Your task to perform on an android device: open wifi settings Image 0: 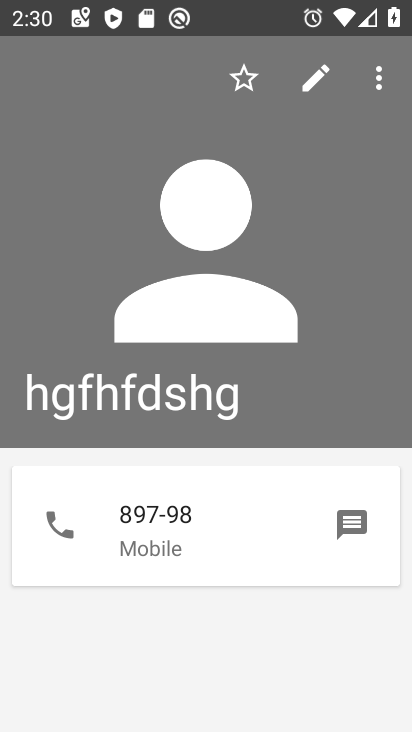
Step 0: press home button
Your task to perform on an android device: open wifi settings Image 1: 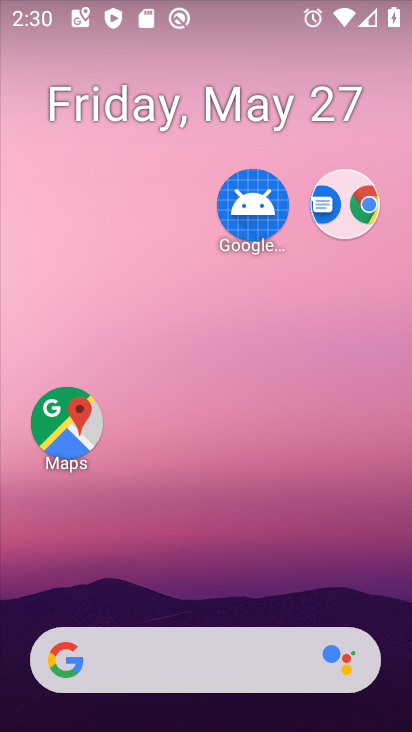
Step 1: drag from (211, 542) to (207, 137)
Your task to perform on an android device: open wifi settings Image 2: 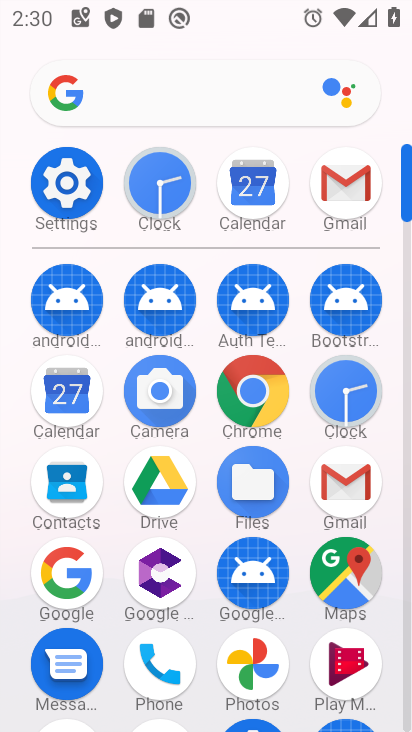
Step 2: click (70, 207)
Your task to perform on an android device: open wifi settings Image 3: 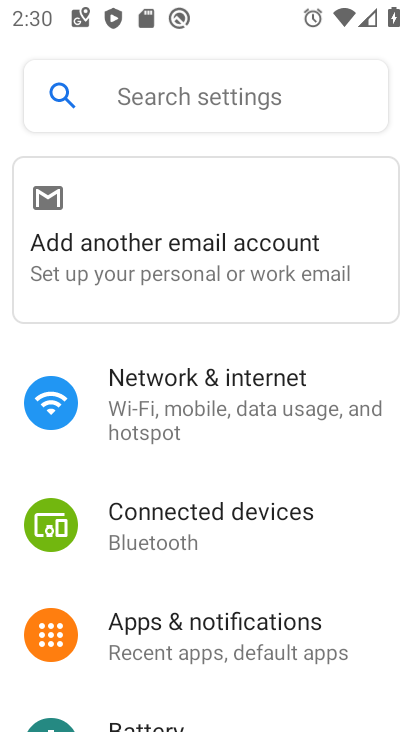
Step 3: click (204, 417)
Your task to perform on an android device: open wifi settings Image 4: 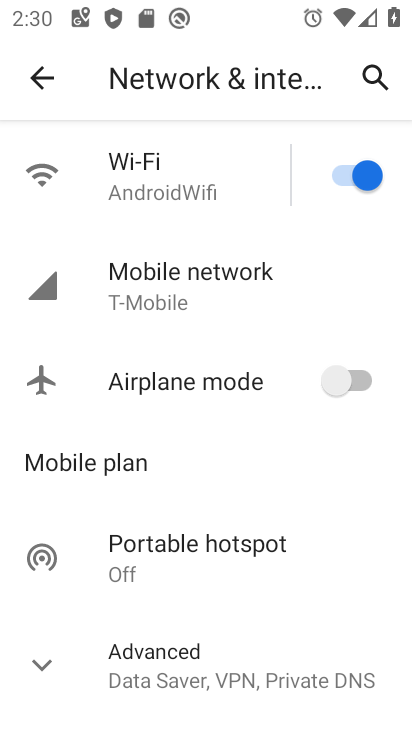
Step 4: click (218, 184)
Your task to perform on an android device: open wifi settings Image 5: 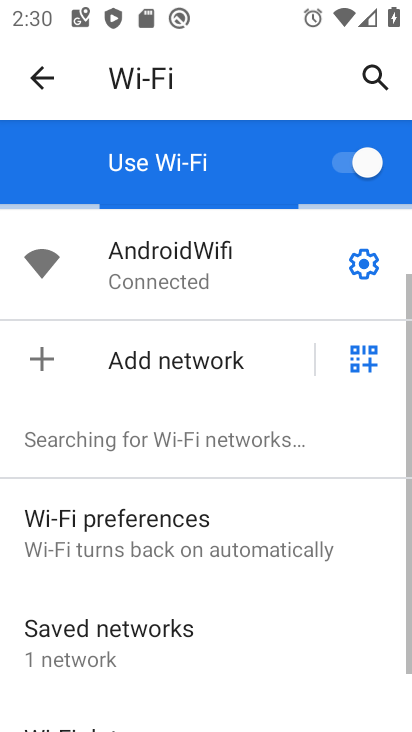
Step 5: task complete